Your task to perform on an android device: open sync settings in chrome Image 0: 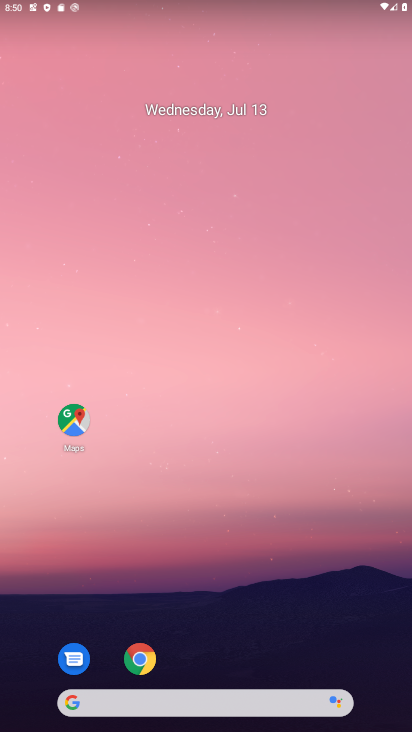
Step 0: click (141, 656)
Your task to perform on an android device: open sync settings in chrome Image 1: 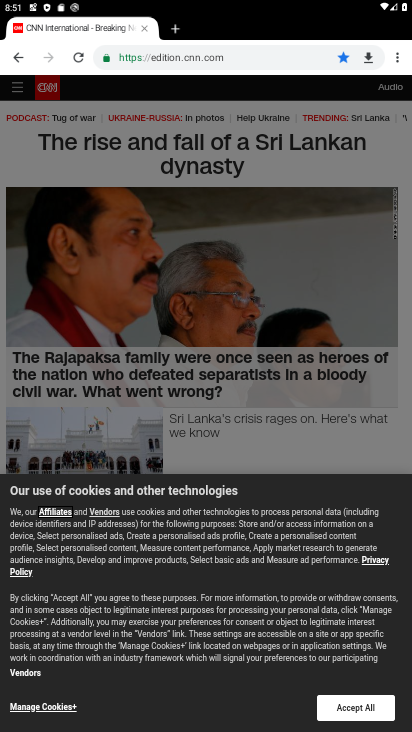
Step 1: click (393, 60)
Your task to perform on an android device: open sync settings in chrome Image 2: 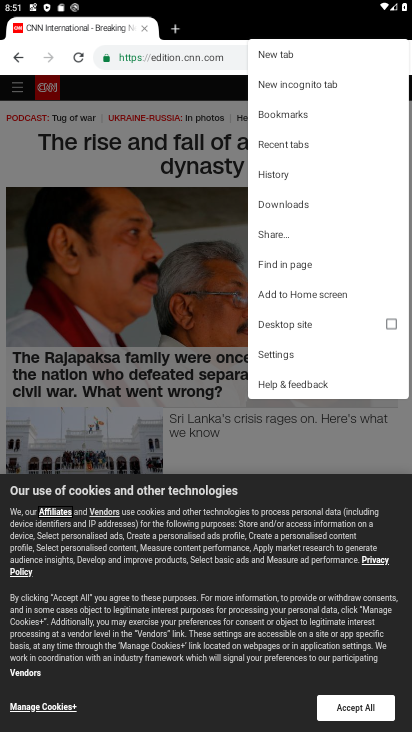
Step 2: click (304, 359)
Your task to perform on an android device: open sync settings in chrome Image 3: 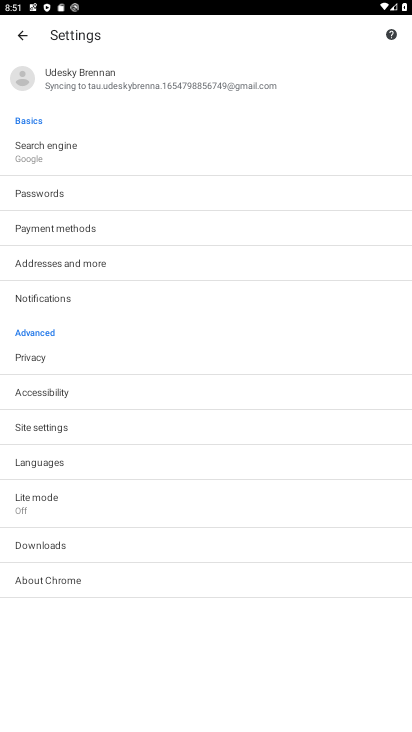
Step 3: click (44, 417)
Your task to perform on an android device: open sync settings in chrome Image 4: 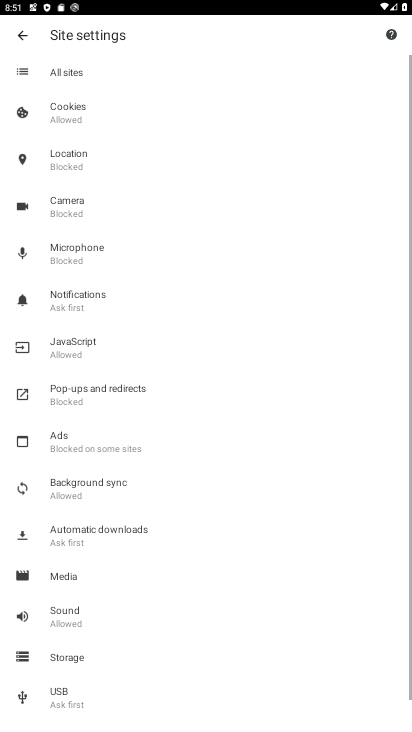
Step 4: click (129, 480)
Your task to perform on an android device: open sync settings in chrome Image 5: 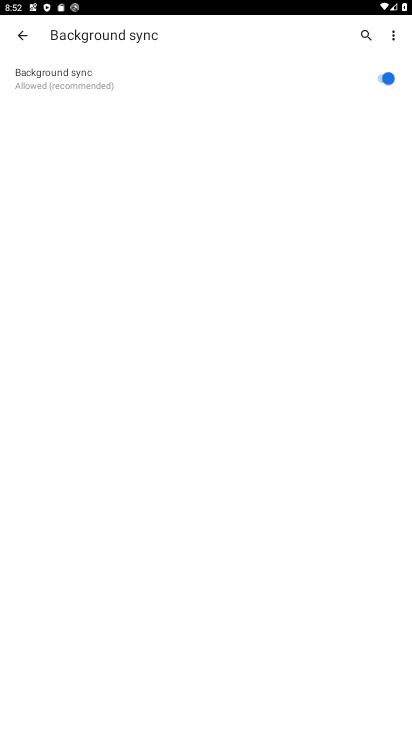
Step 5: task complete